Your task to perform on an android device: delete location history Image 0: 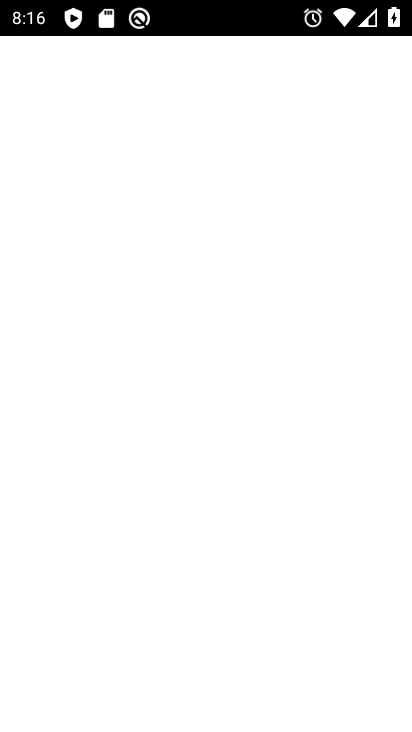
Step 0: press home button
Your task to perform on an android device: delete location history Image 1: 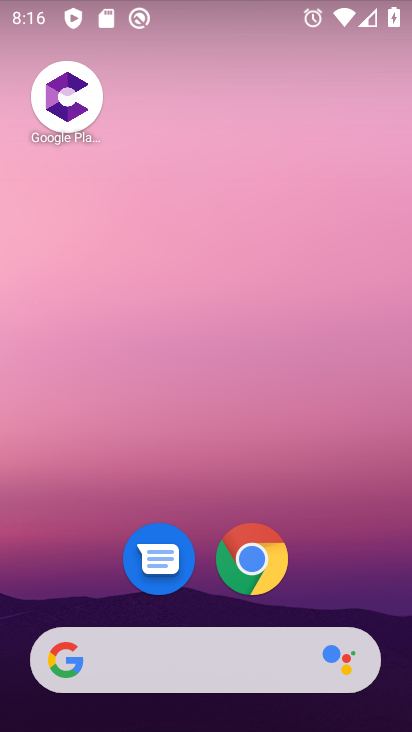
Step 1: drag from (333, 509) to (316, 2)
Your task to perform on an android device: delete location history Image 2: 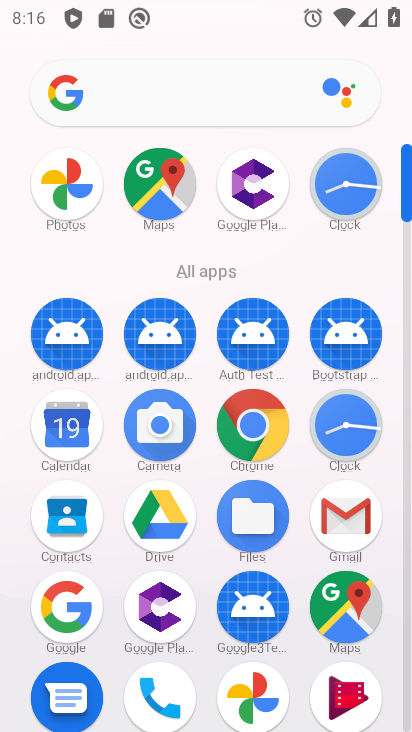
Step 2: click (376, 588)
Your task to perform on an android device: delete location history Image 3: 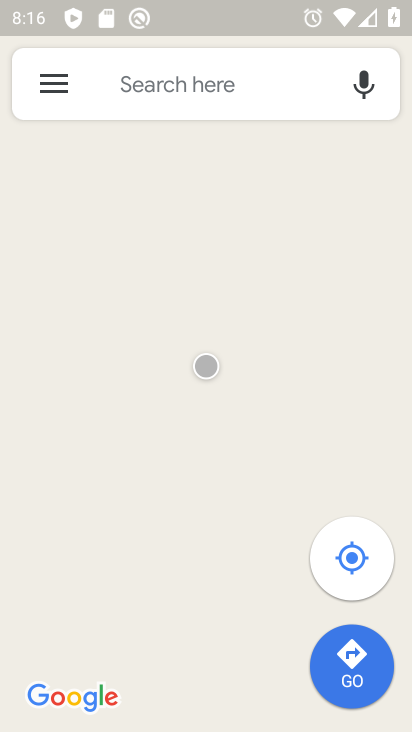
Step 3: click (70, 98)
Your task to perform on an android device: delete location history Image 4: 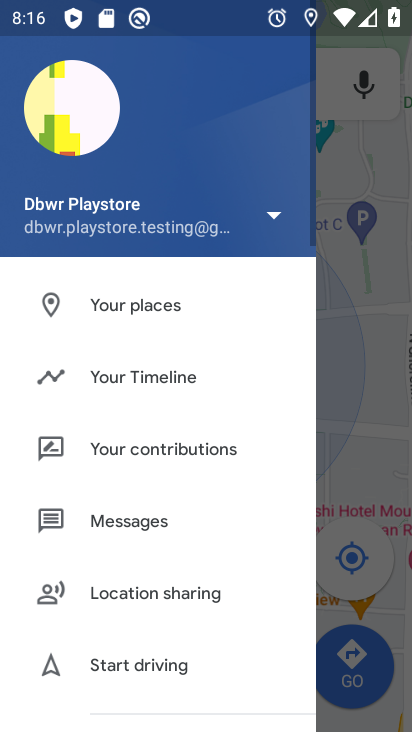
Step 4: click (97, 379)
Your task to perform on an android device: delete location history Image 5: 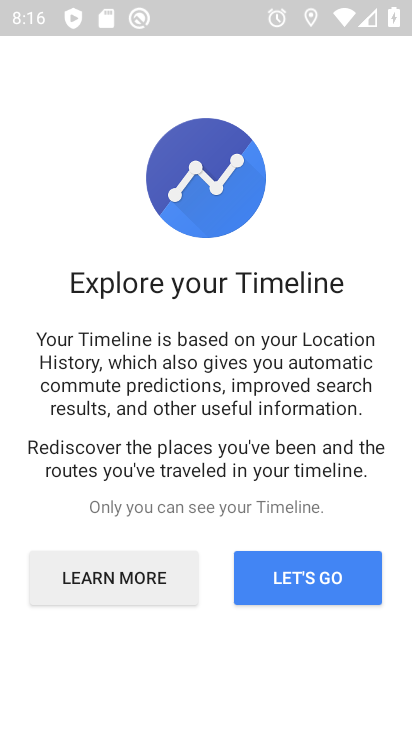
Step 5: click (250, 605)
Your task to perform on an android device: delete location history Image 6: 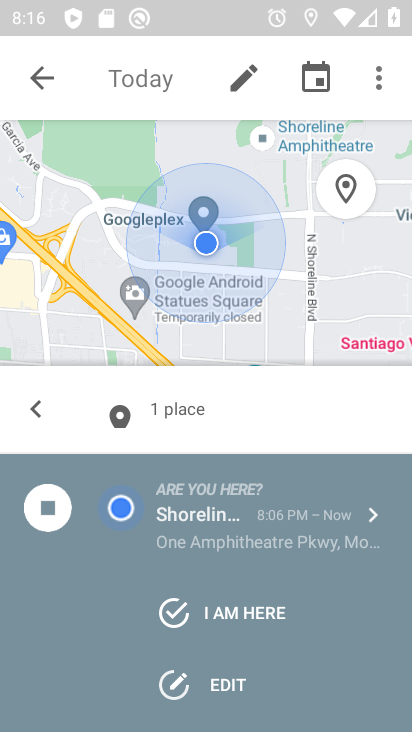
Step 6: click (379, 73)
Your task to perform on an android device: delete location history Image 7: 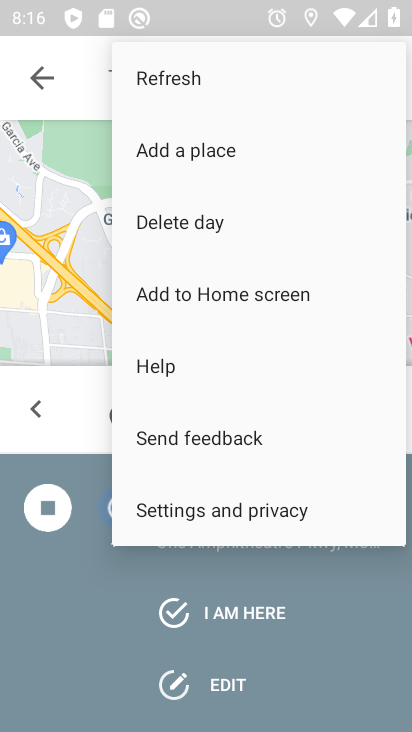
Step 7: click (236, 504)
Your task to perform on an android device: delete location history Image 8: 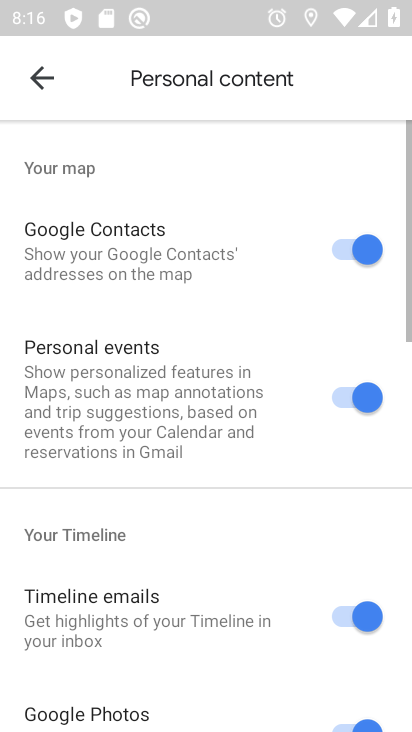
Step 8: drag from (238, 618) to (237, 185)
Your task to perform on an android device: delete location history Image 9: 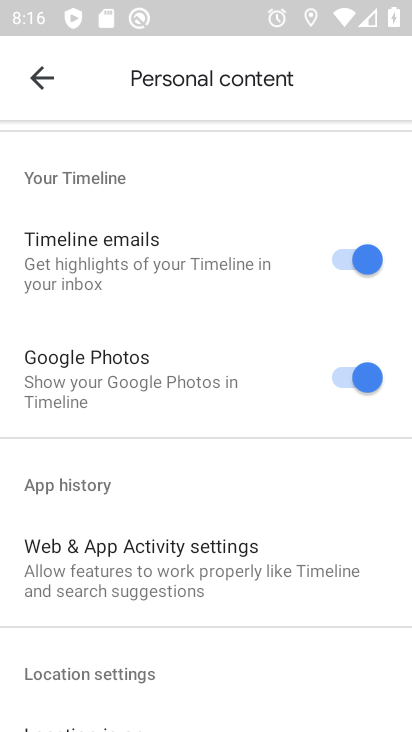
Step 9: drag from (238, 654) to (235, 137)
Your task to perform on an android device: delete location history Image 10: 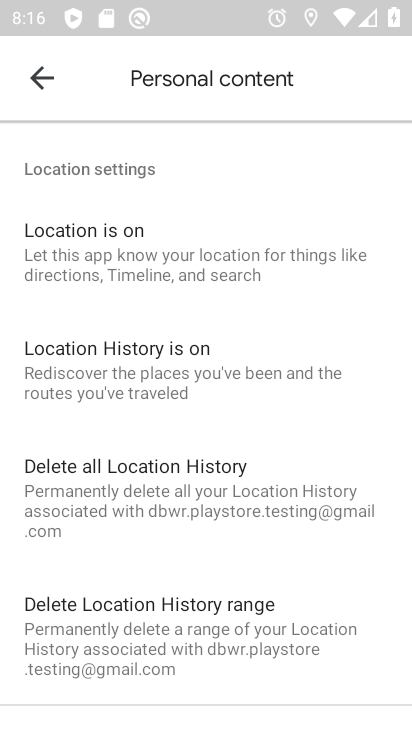
Step 10: drag from (298, 668) to (281, 506)
Your task to perform on an android device: delete location history Image 11: 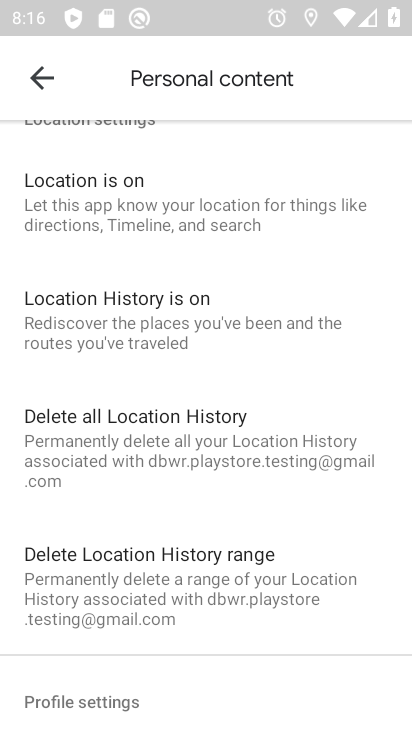
Step 11: click (113, 465)
Your task to perform on an android device: delete location history Image 12: 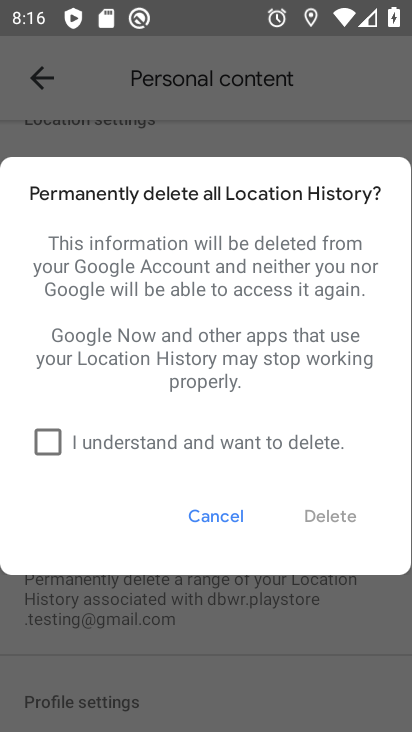
Step 12: click (113, 441)
Your task to perform on an android device: delete location history Image 13: 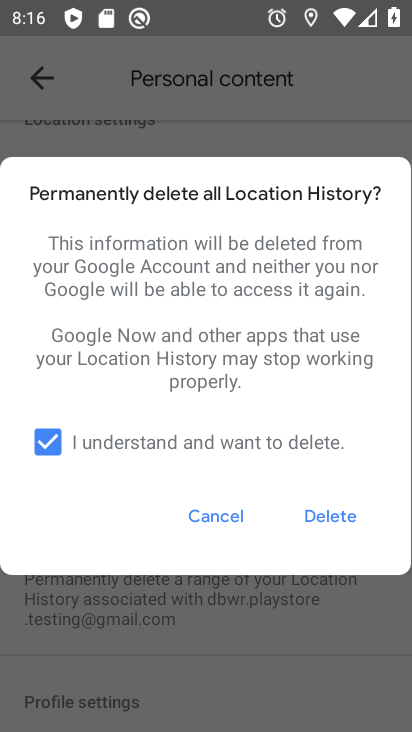
Step 13: click (352, 501)
Your task to perform on an android device: delete location history Image 14: 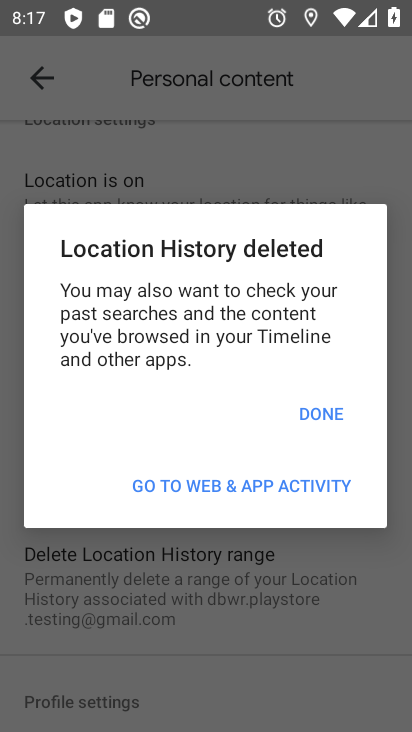
Step 14: click (316, 432)
Your task to perform on an android device: delete location history Image 15: 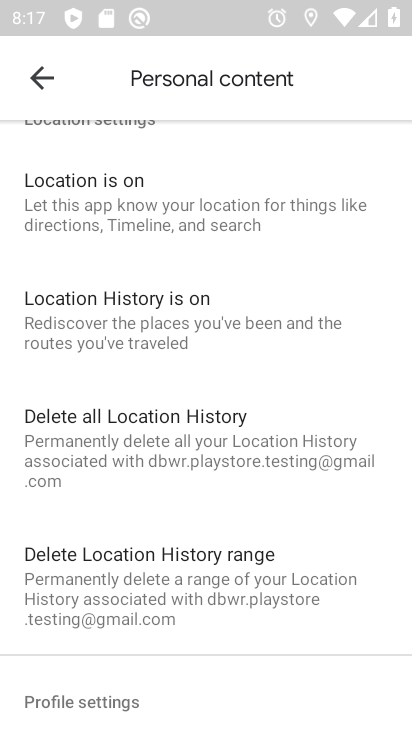
Step 15: task complete